Your task to perform on an android device: Search for seafood restaurants on Google Maps Image 0: 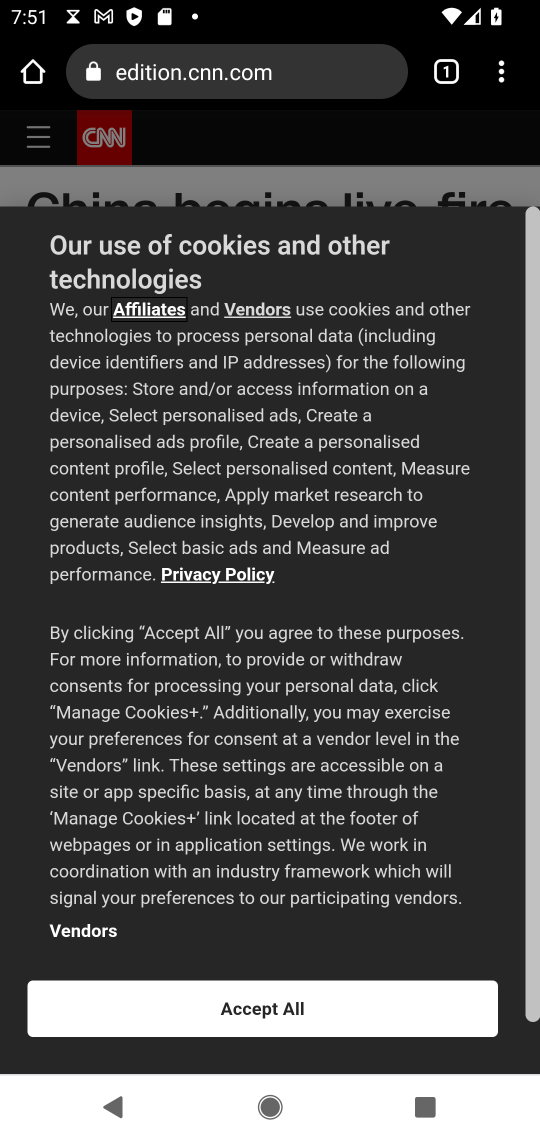
Step 0: press home button
Your task to perform on an android device: Search for seafood restaurants on Google Maps Image 1: 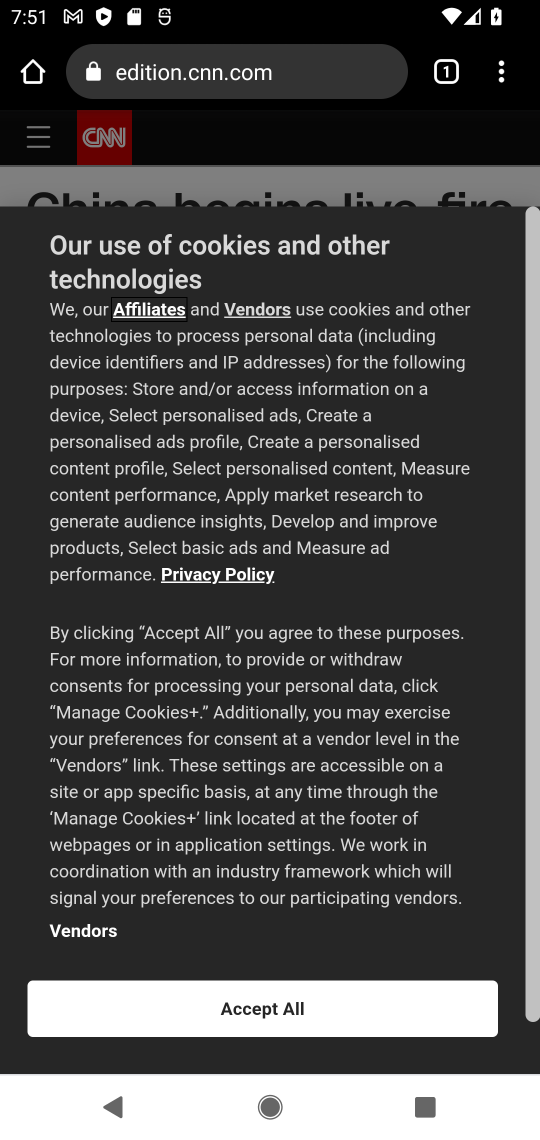
Step 1: press home button
Your task to perform on an android device: Search for seafood restaurants on Google Maps Image 2: 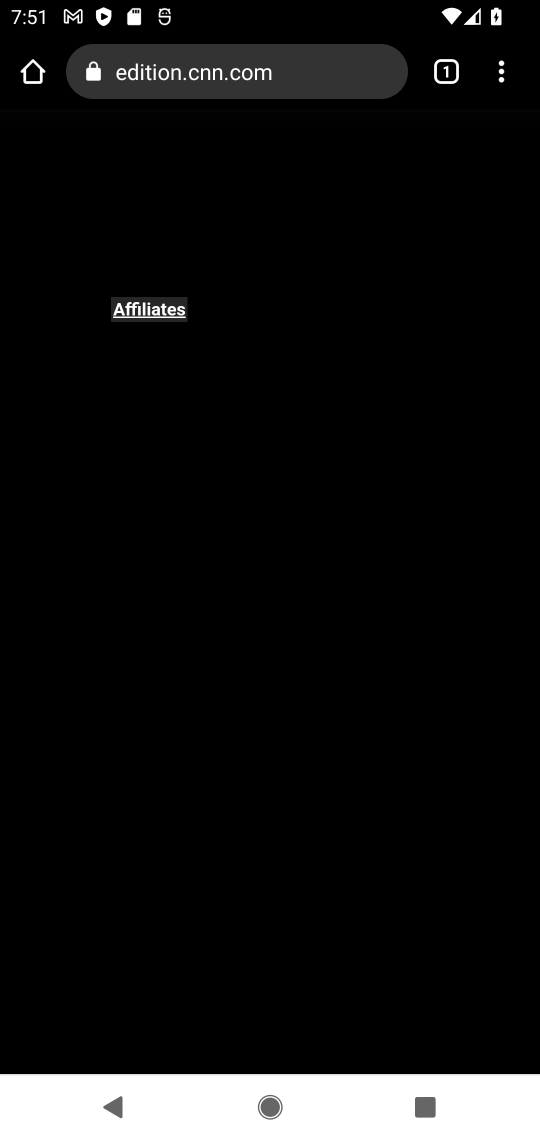
Step 2: press home button
Your task to perform on an android device: Search for seafood restaurants on Google Maps Image 3: 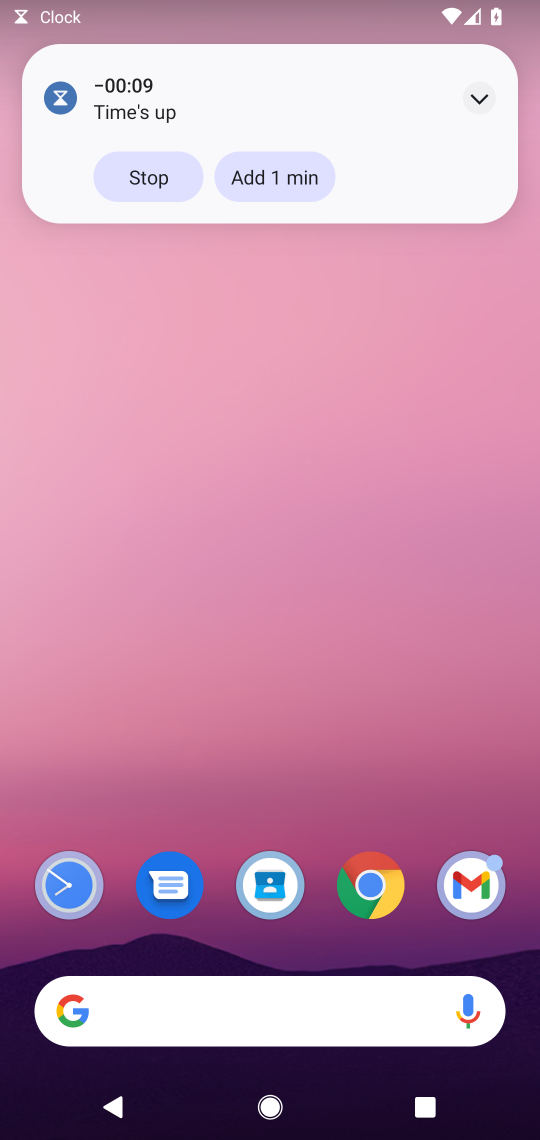
Step 3: click (148, 169)
Your task to perform on an android device: Search for seafood restaurants on Google Maps Image 4: 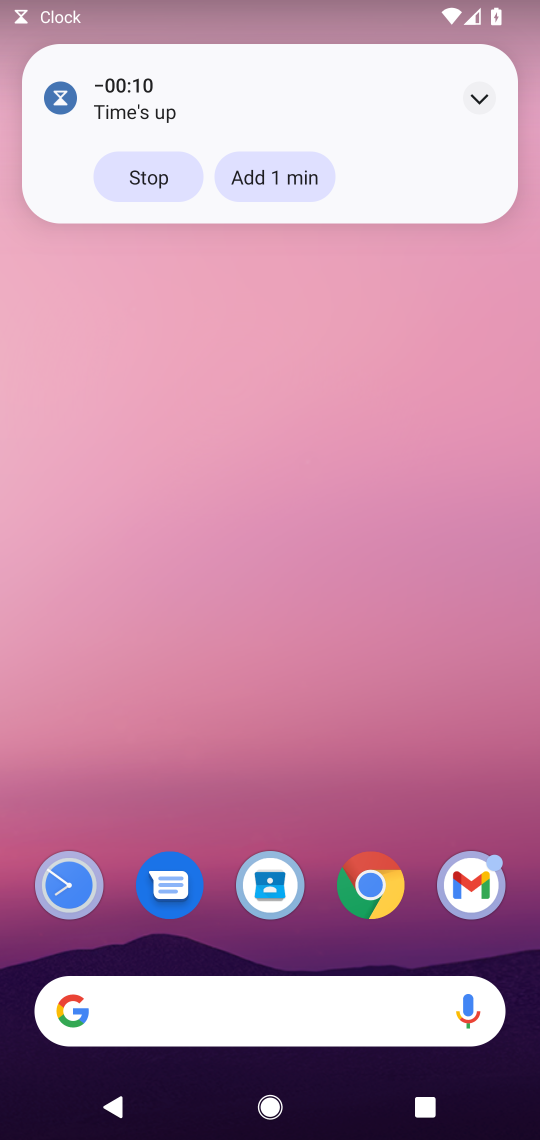
Step 4: drag from (352, 792) to (193, 2)
Your task to perform on an android device: Search for seafood restaurants on Google Maps Image 5: 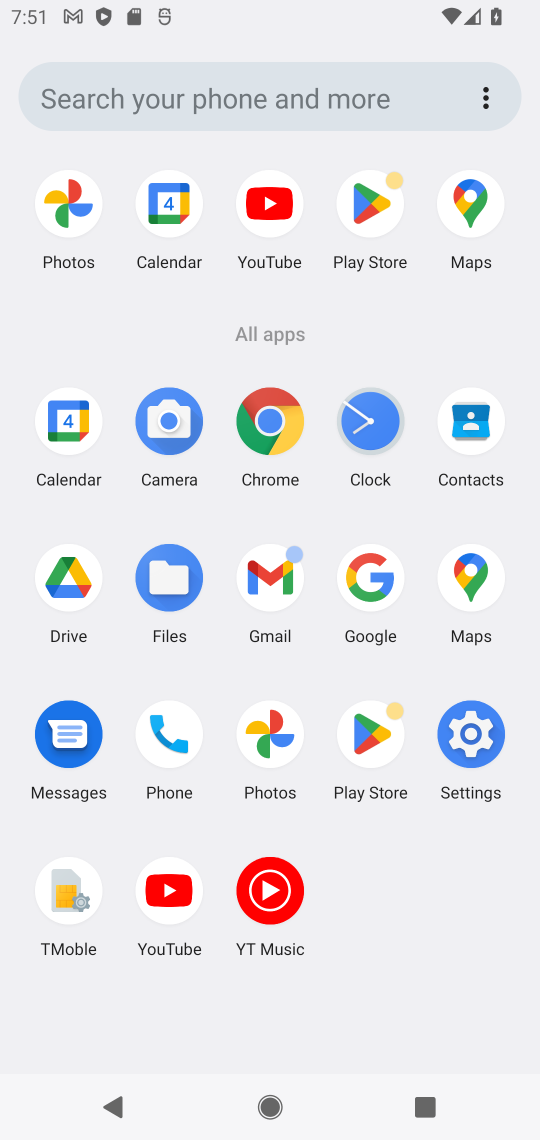
Step 5: click (455, 233)
Your task to perform on an android device: Search for seafood restaurants on Google Maps Image 6: 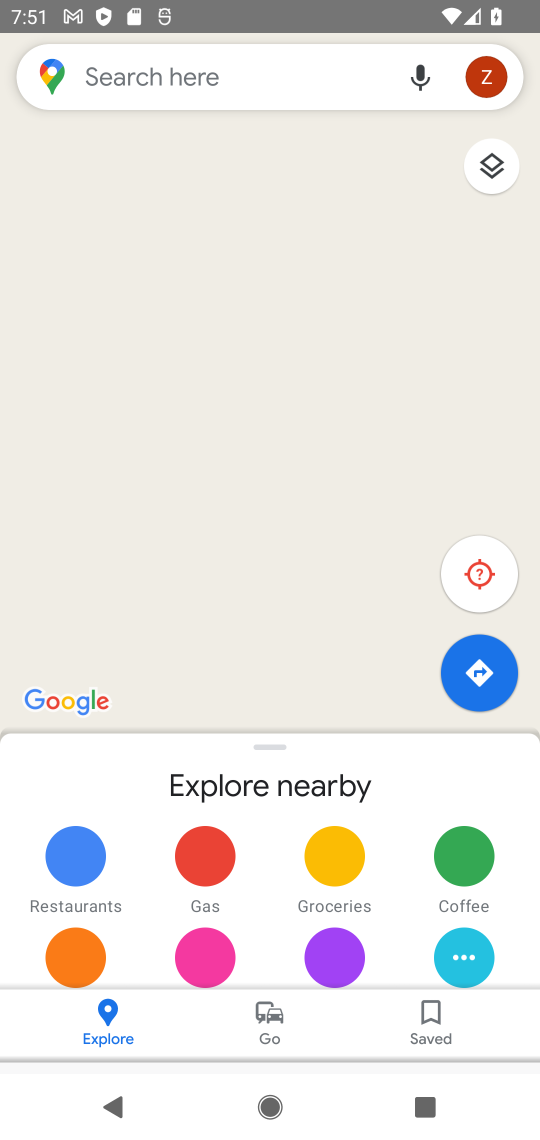
Step 6: click (262, 92)
Your task to perform on an android device: Search for seafood restaurants on Google Maps Image 7: 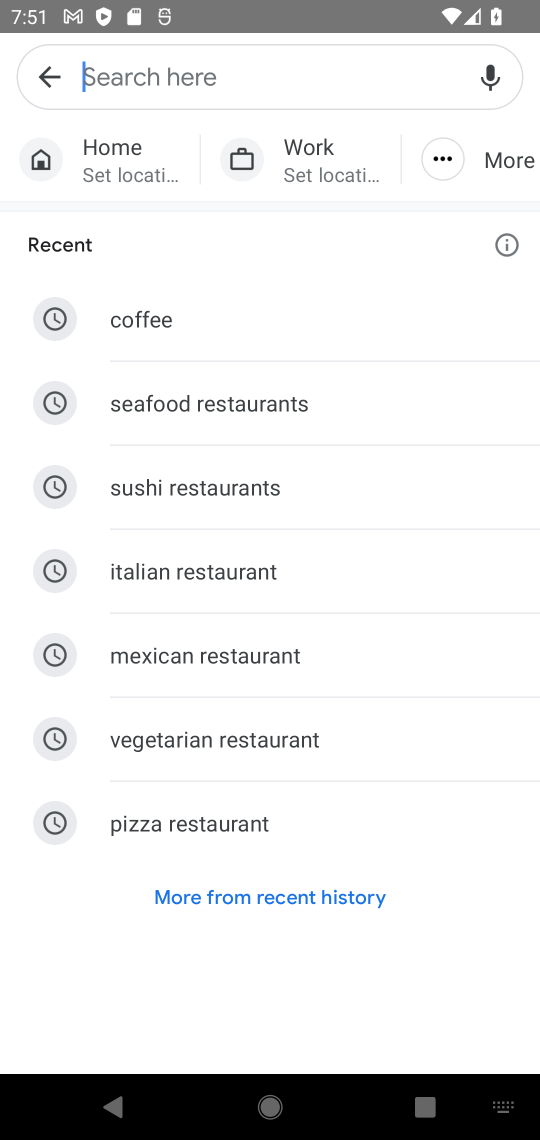
Step 7: type " seafood restaurants "
Your task to perform on an android device: Search for seafood restaurants on Google Maps Image 8: 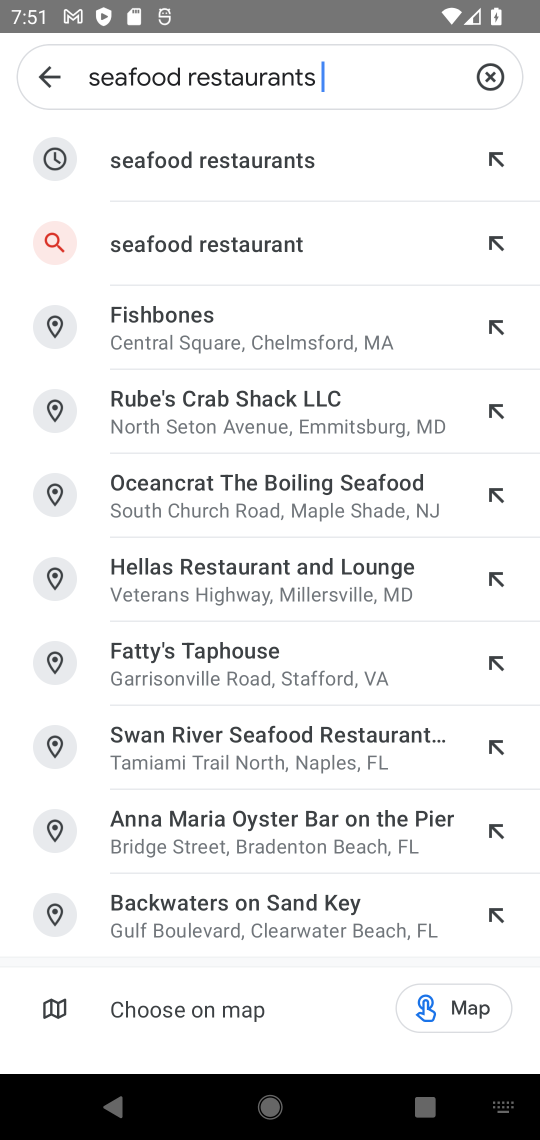
Step 8: click (152, 156)
Your task to perform on an android device: Search for seafood restaurants on Google Maps Image 9: 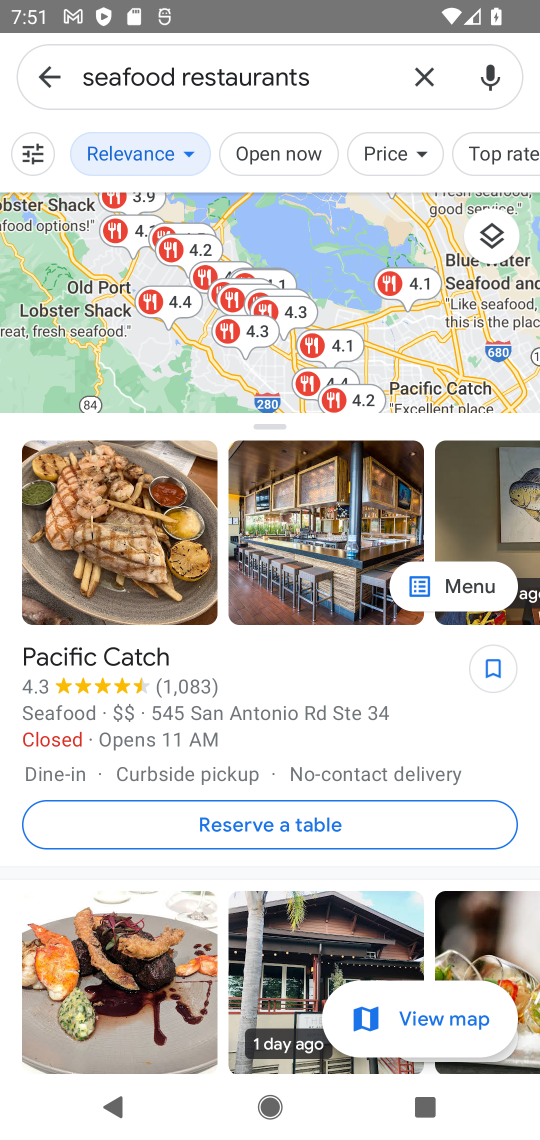
Step 9: task complete